Your task to perform on an android device: turn off wifi Image 0: 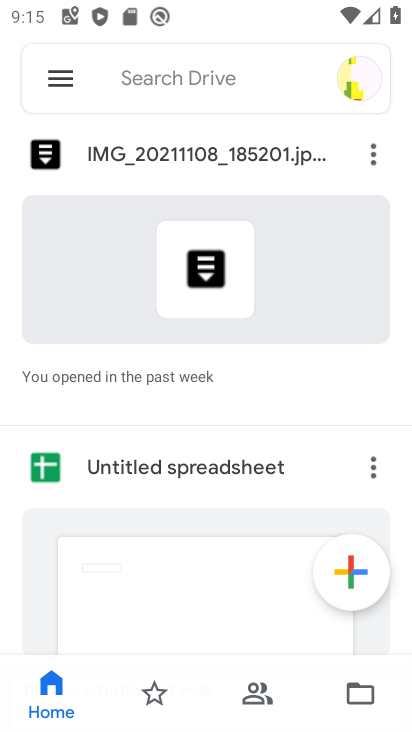
Step 0: press home button
Your task to perform on an android device: turn off wifi Image 1: 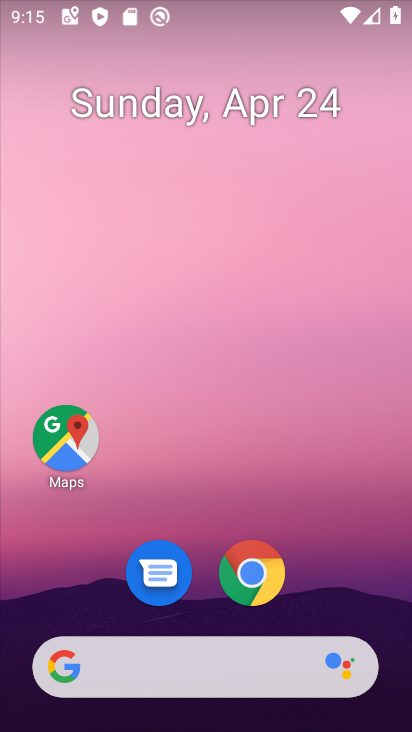
Step 1: drag from (342, 562) to (322, 112)
Your task to perform on an android device: turn off wifi Image 2: 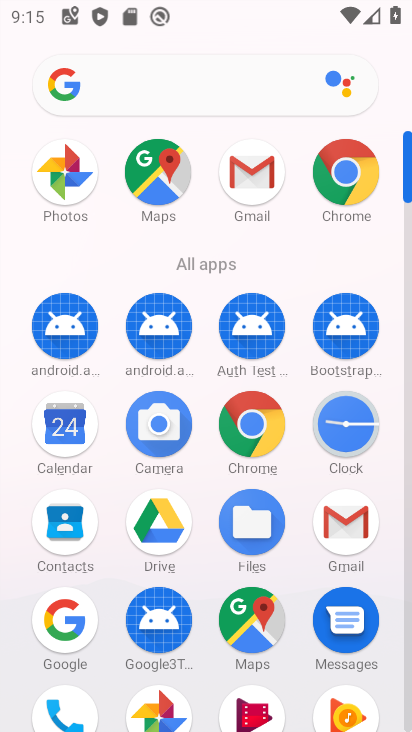
Step 2: drag from (295, 599) to (378, 171)
Your task to perform on an android device: turn off wifi Image 3: 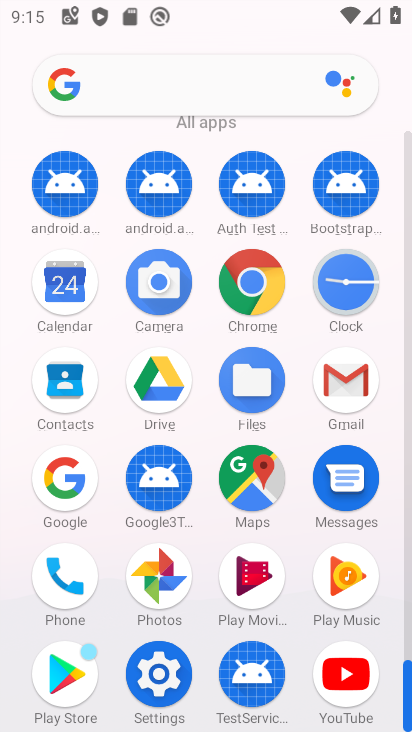
Step 3: click (176, 660)
Your task to perform on an android device: turn off wifi Image 4: 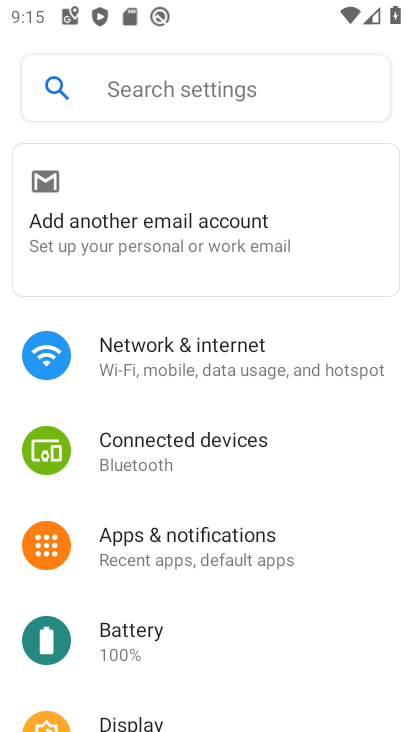
Step 4: click (196, 334)
Your task to perform on an android device: turn off wifi Image 5: 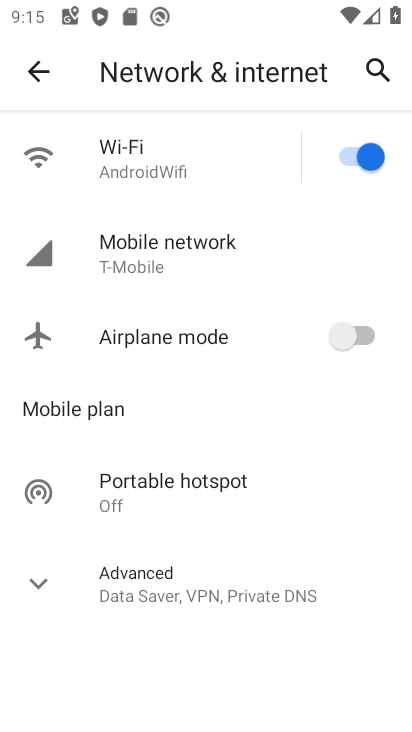
Step 5: click (352, 166)
Your task to perform on an android device: turn off wifi Image 6: 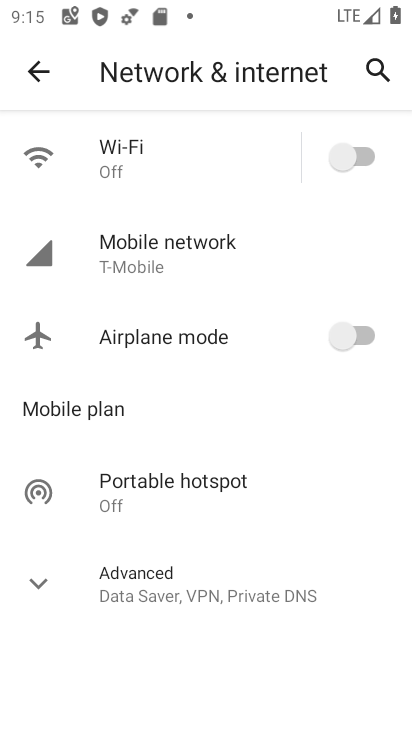
Step 6: task complete